Your task to perform on an android device: change the clock display to digital Image 0: 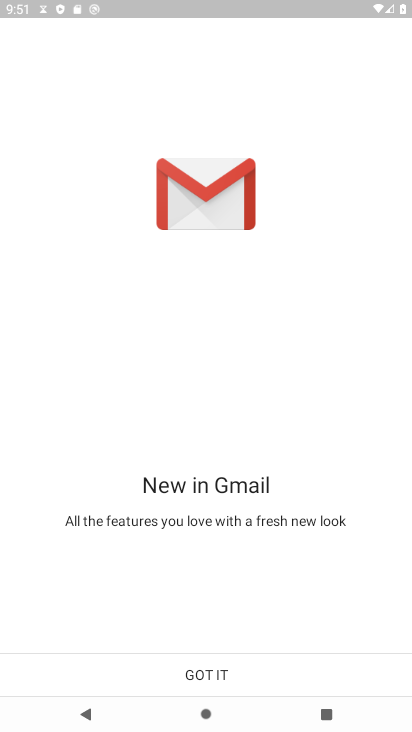
Step 0: press home button
Your task to perform on an android device: change the clock display to digital Image 1: 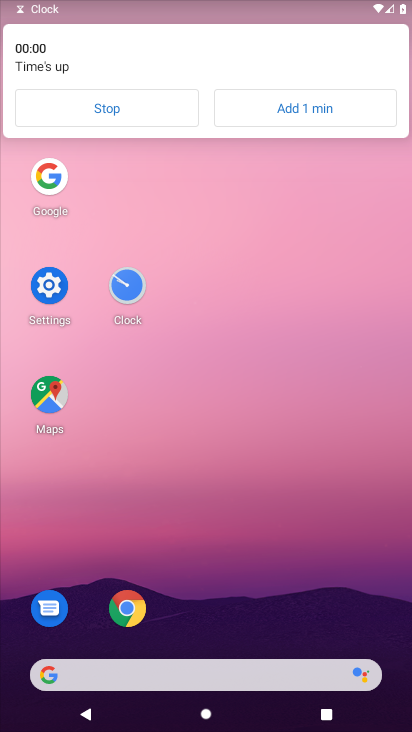
Step 1: click (111, 282)
Your task to perform on an android device: change the clock display to digital Image 2: 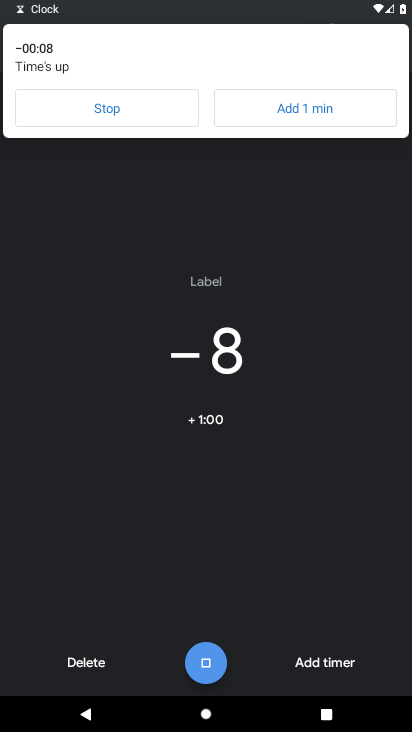
Step 2: press back button
Your task to perform on an android device: change the clock display to digital Image 3: 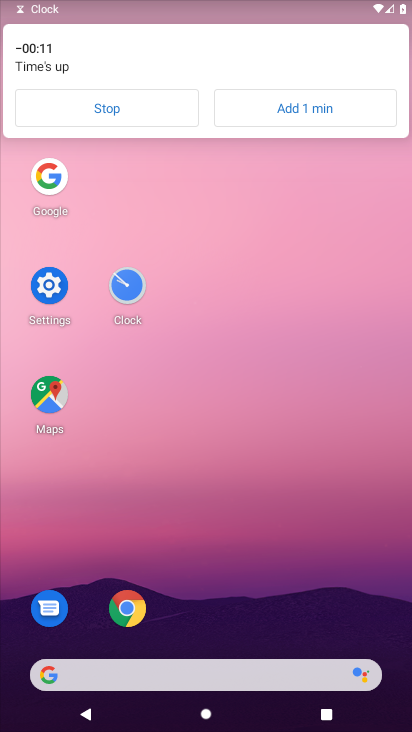
Step 3: click (137, 295)
Your task to perform on an android device: change the clock display to digital Image 4: 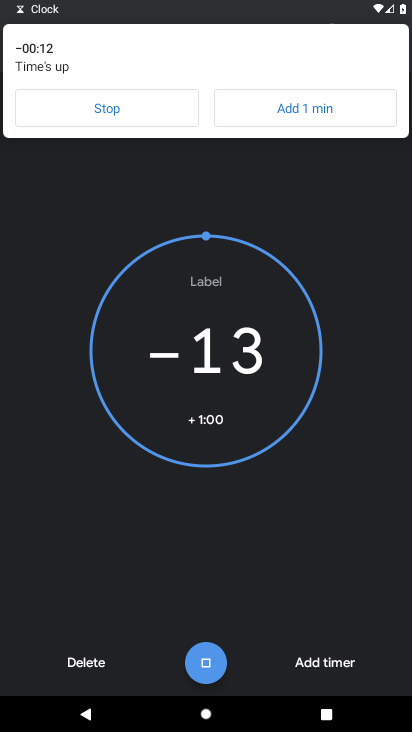
Step 4: click (131, 115)
Your task to perform on an android device: change the clock display to digital Image 5: 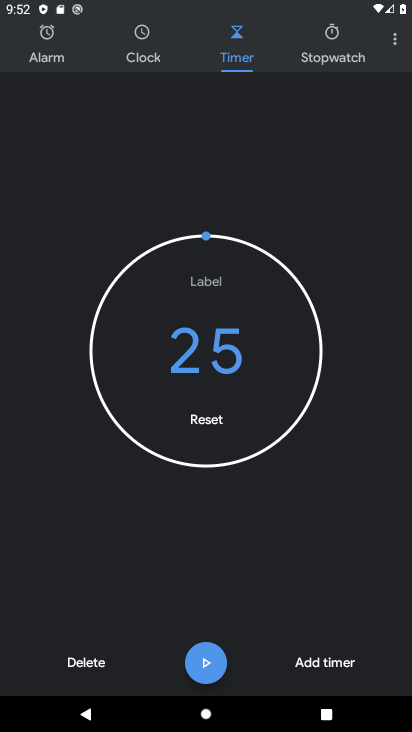
Step 5: click (377, 44)
Your task to perform on an android device: change the clock display to digital Image 6: 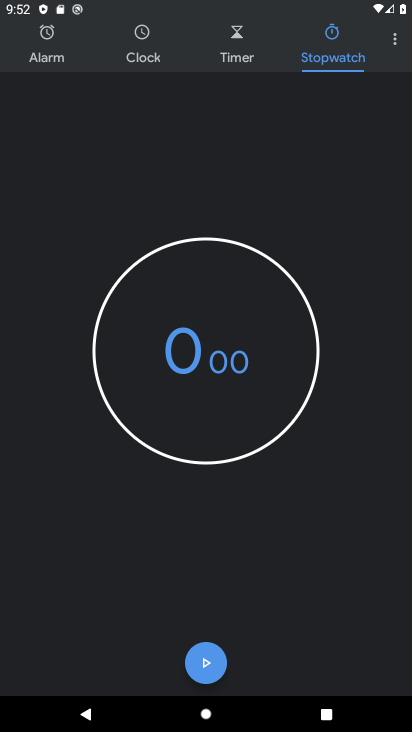
Step 6: click (407, 26)
Your task to perform on an android device: change the clock display to digital Image 7: 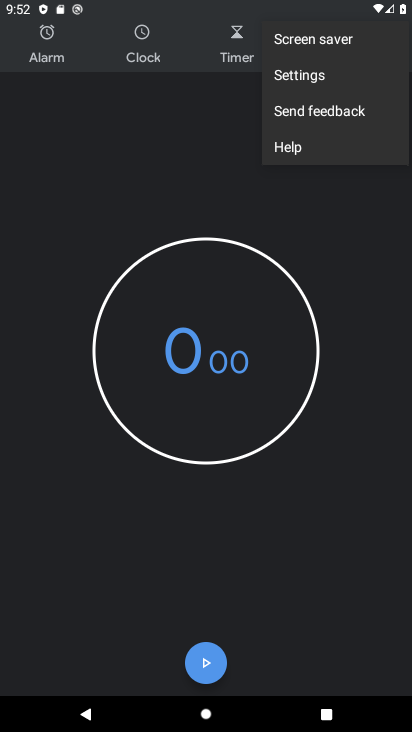
Step 7: click (356, 75)
Your task to perform on an android device: change the clock display to digital Image 8: 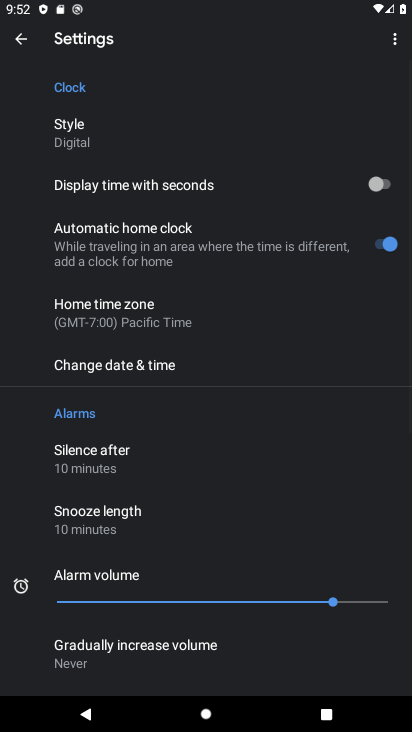
Step 8: task complete